Your task to perform on an android device: What is the price of a 12' ladder at Home Depot? Image 0: 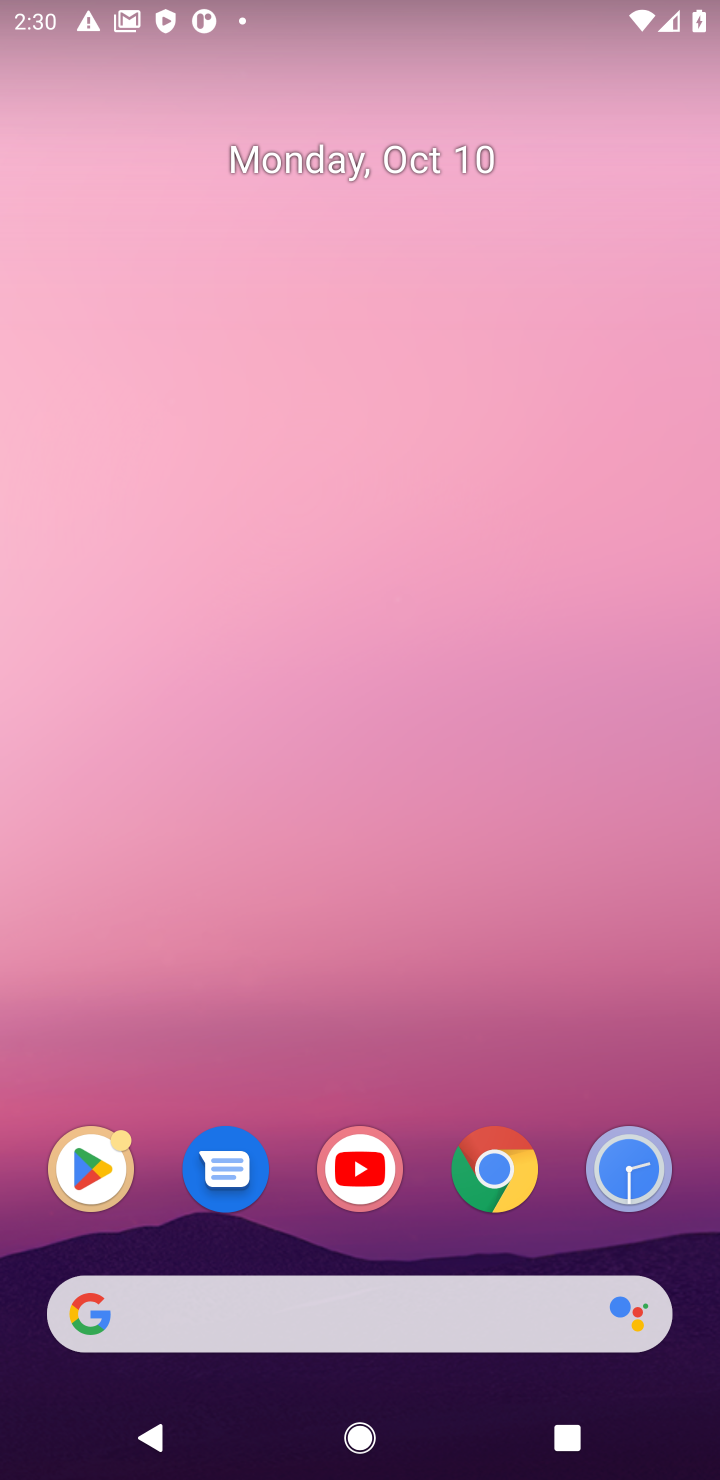
Step 0: drag from (401, 1338) to (589, 153)
Your task to perform on an android device: What is the price of a 12' ladder at Home Depot? Image 1: 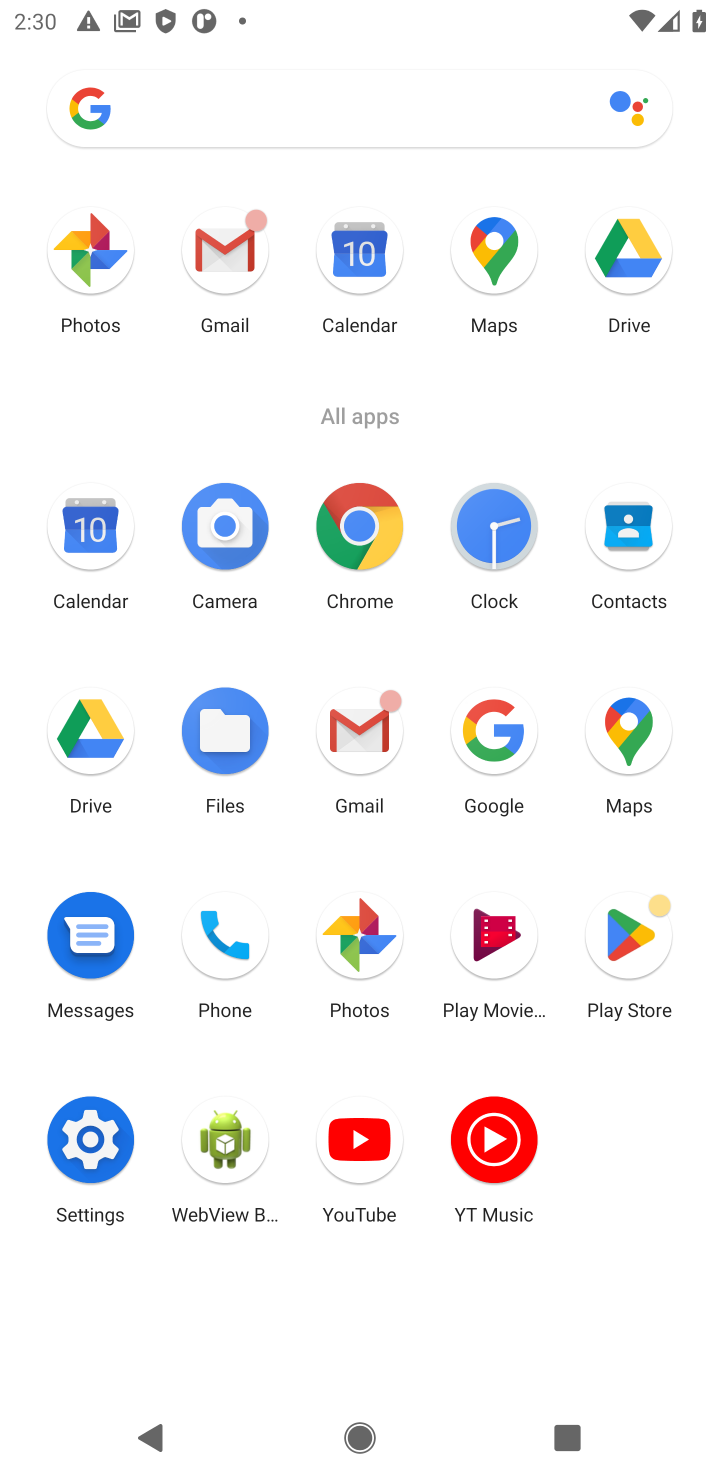
Step 1: click (350, 554)
Your task to perform on an android device: What is the price of a 12' ladder at Home Depot? Image 2: 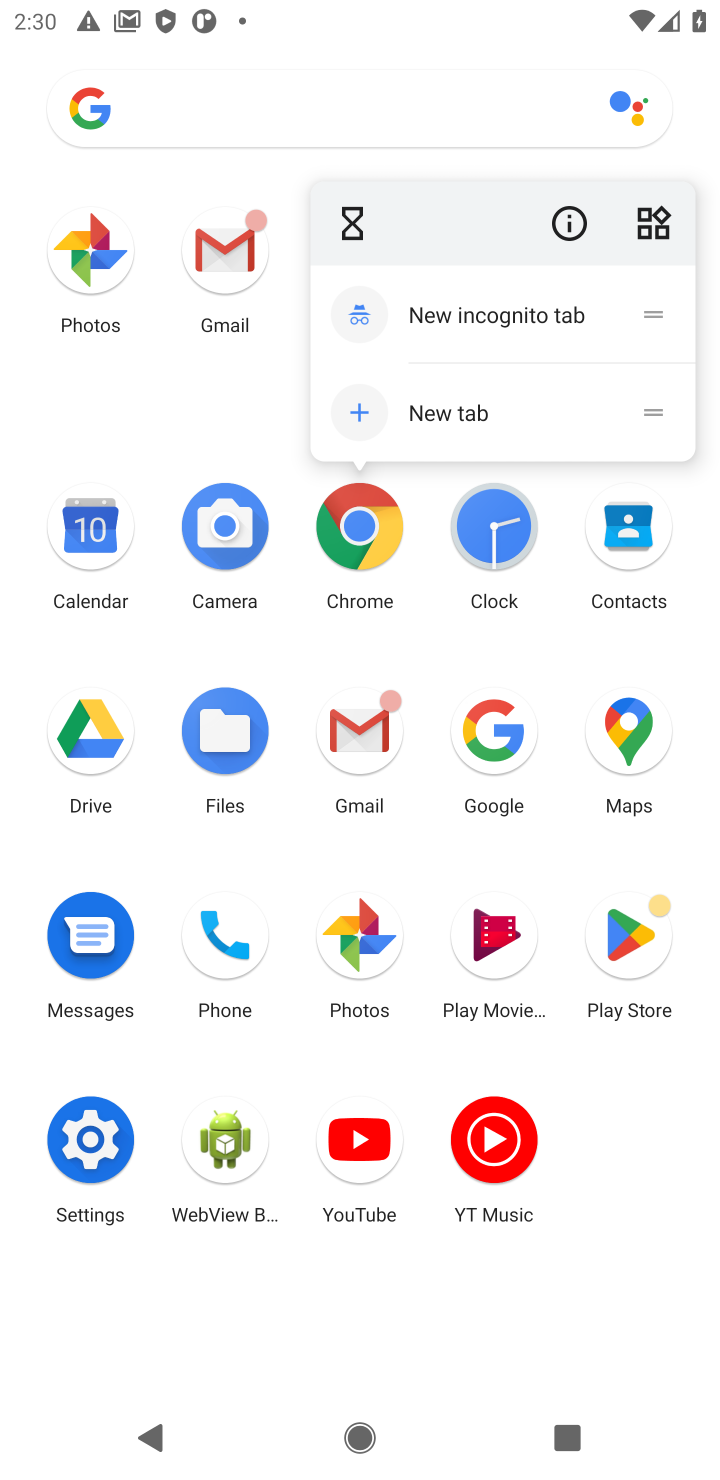
Step 2: click (362, 527)
Your task to perform on an android device: What is the price of a 12' ladder at Home Depot? Image 3: 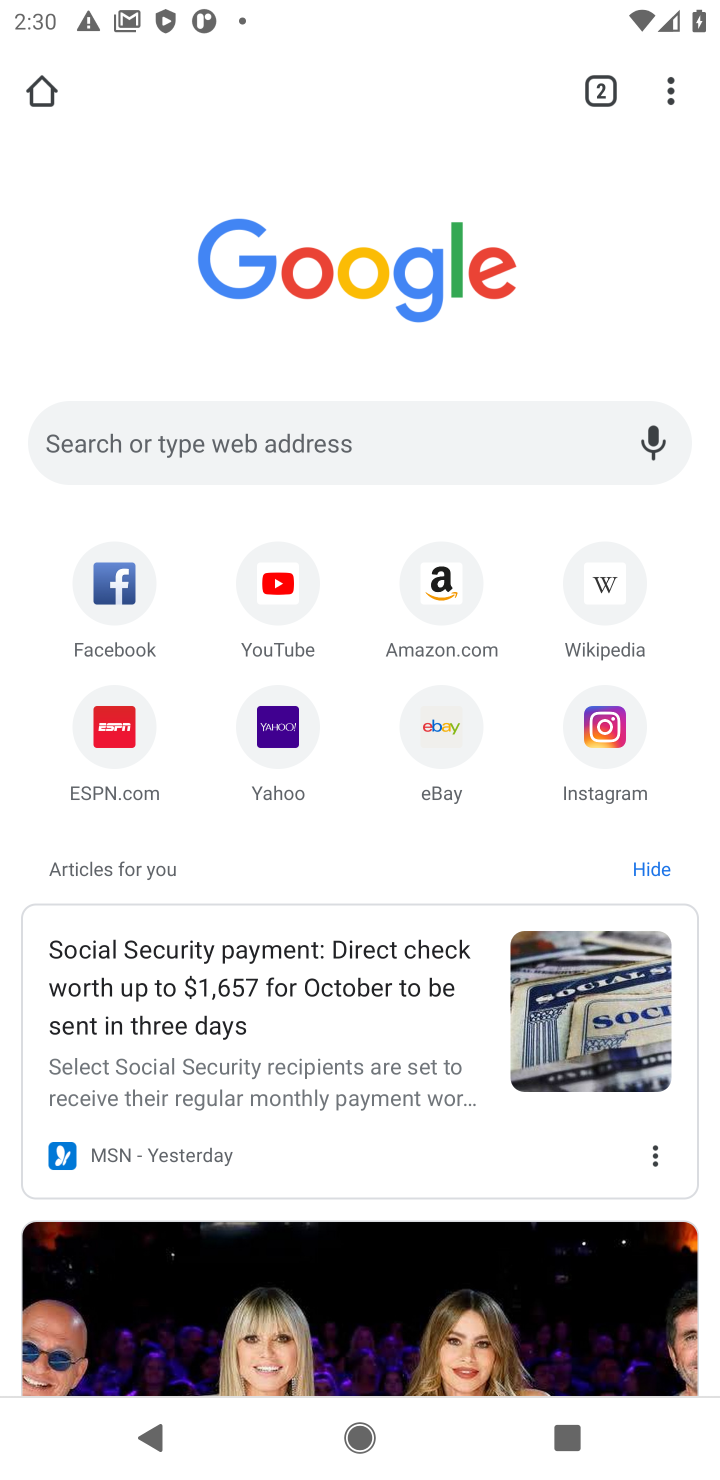
Step 3: click (313, 447)
Your task to perform on an android device: What is the price of a 12' ladder at Home Depot? Image 4: 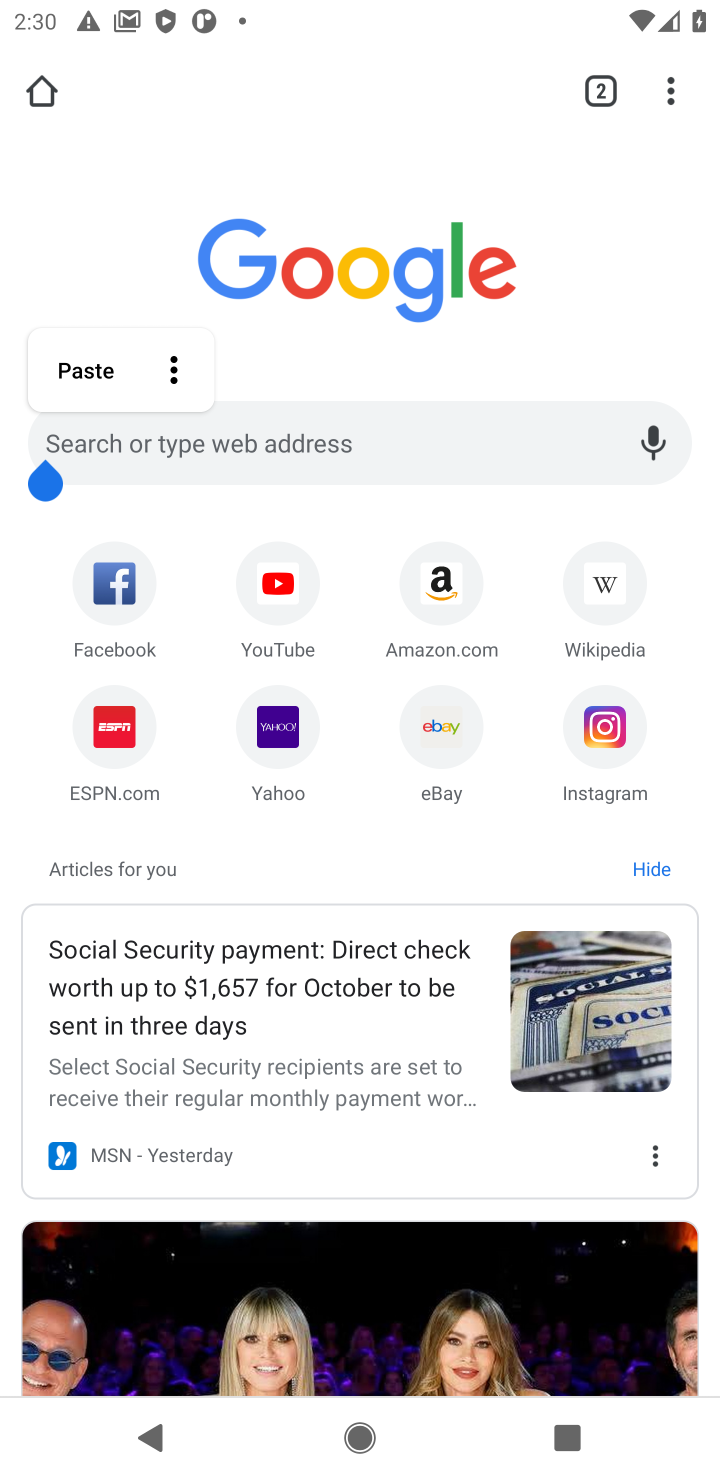
Step 4: click (415, 437)
Your task to perform on an android device: What is the price of a 12' ladder at Home Depot? Image 5: 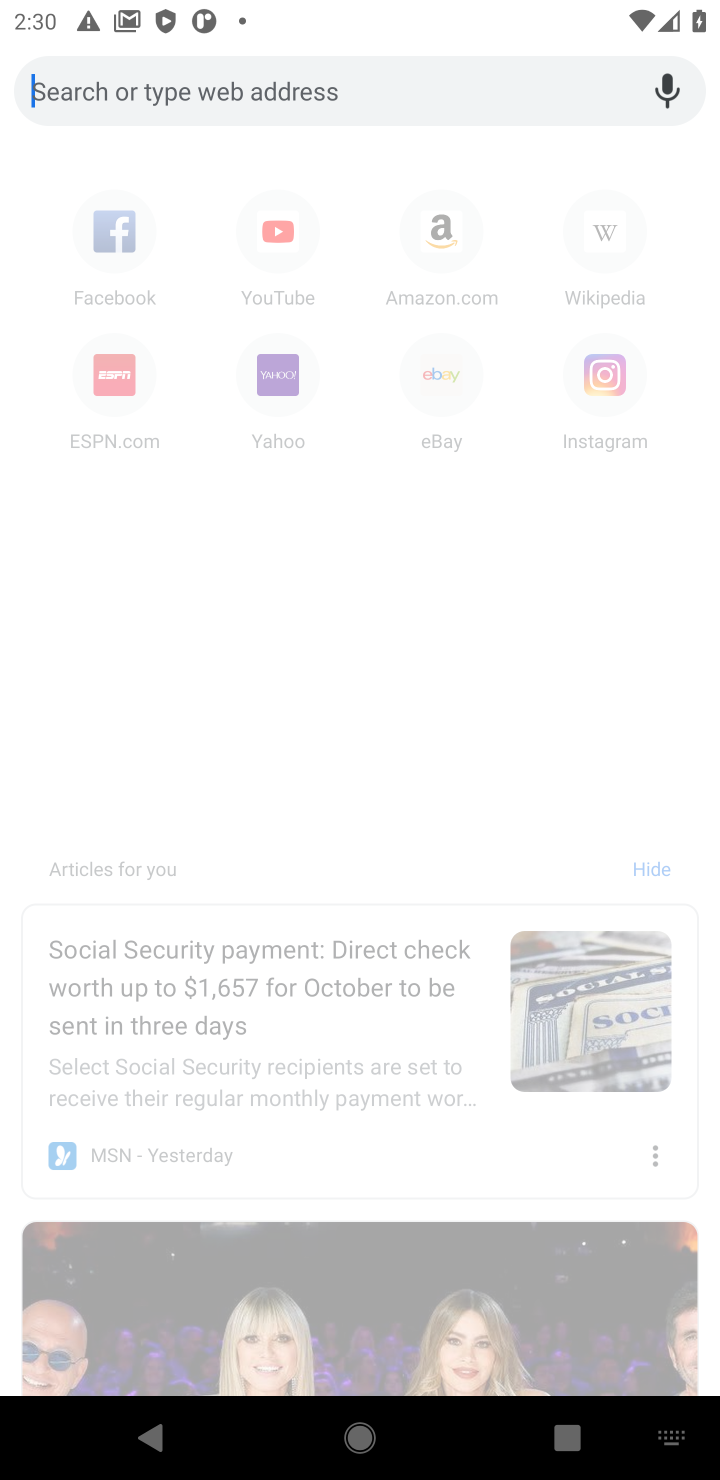
Step 5: type "What is the price of a 12' ladder at Home Depot?"
Your task to perform on an android device: What is the price of a 12' ladder at Home Depot? Image 6: 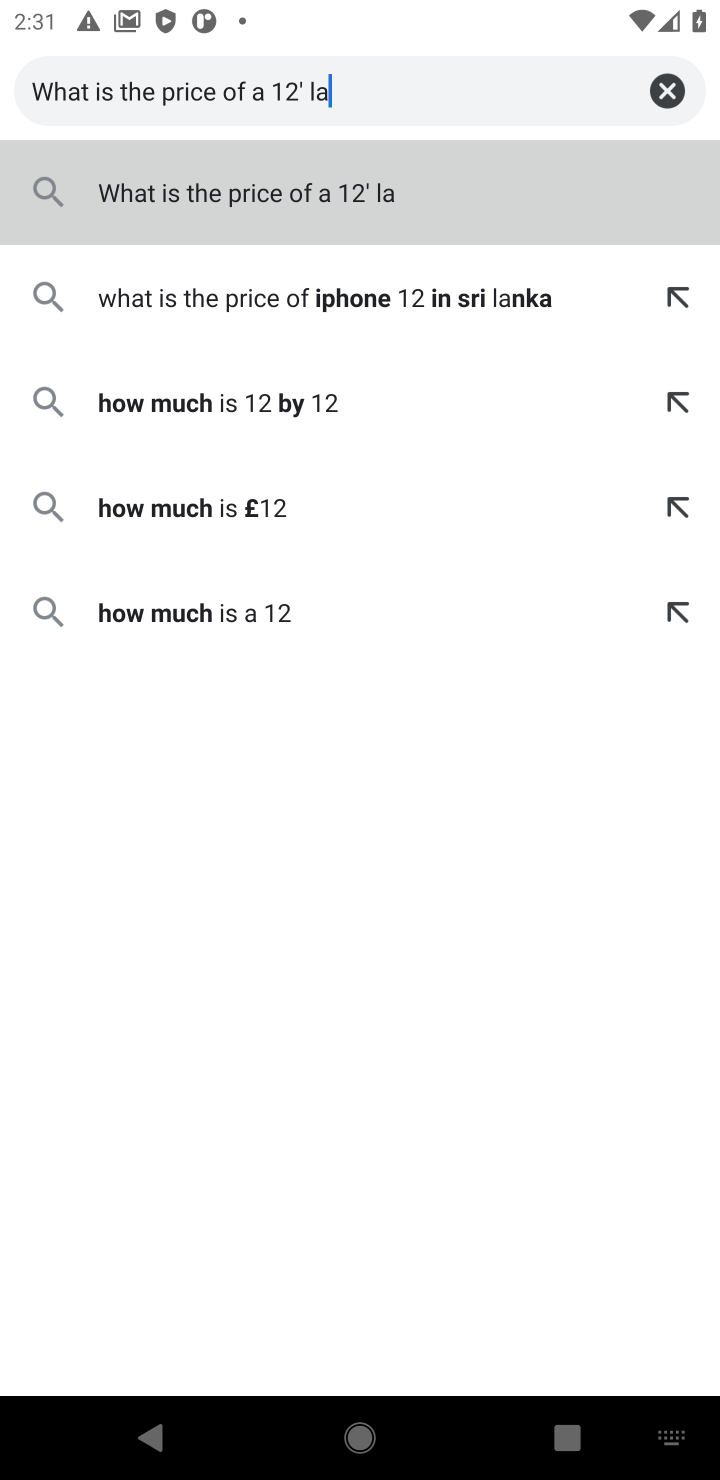
Step 6: press enter
Your task to perform on an android device: What is the price of a 12' ladder at Home Depot? Image 7: 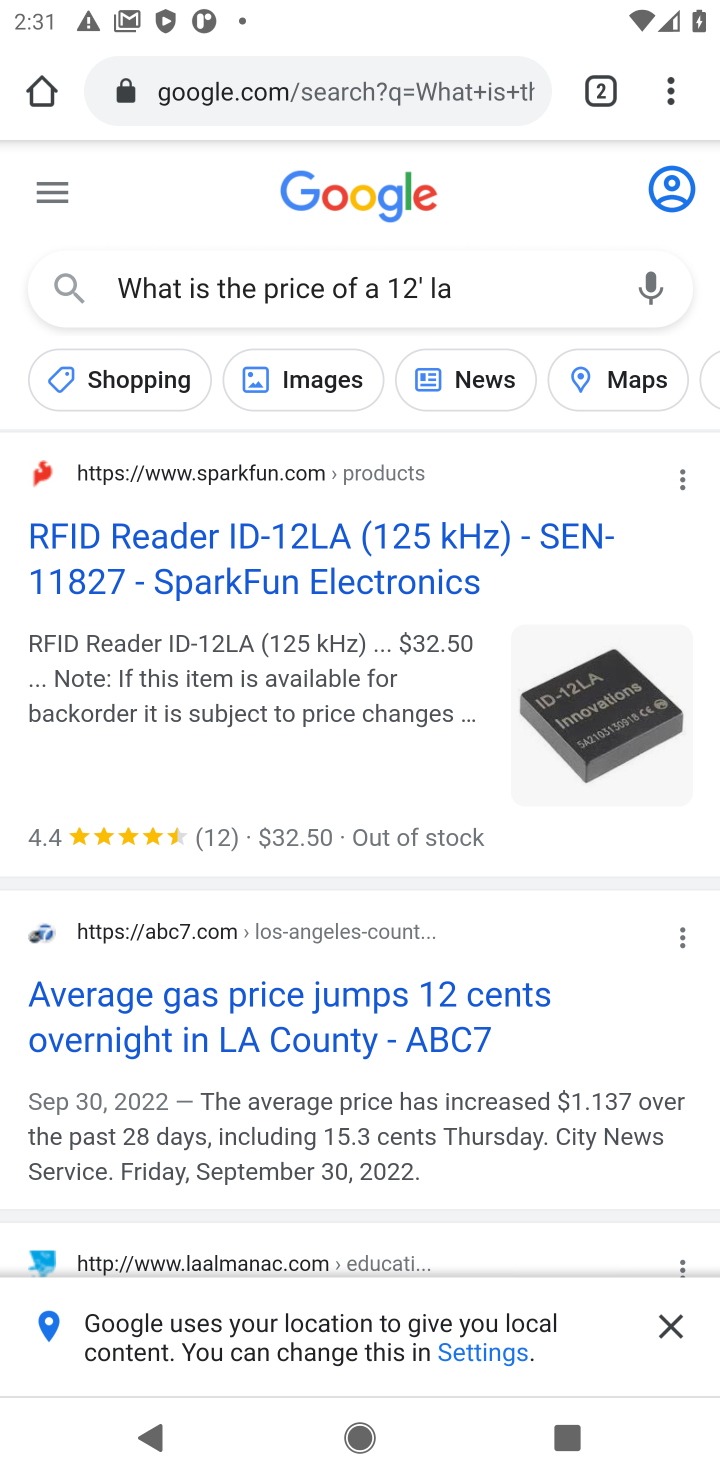
Step 7: click (275, 539)
Your task to perform on an android device: What is the price of a 12' ladder at Home Depot? Image 8: 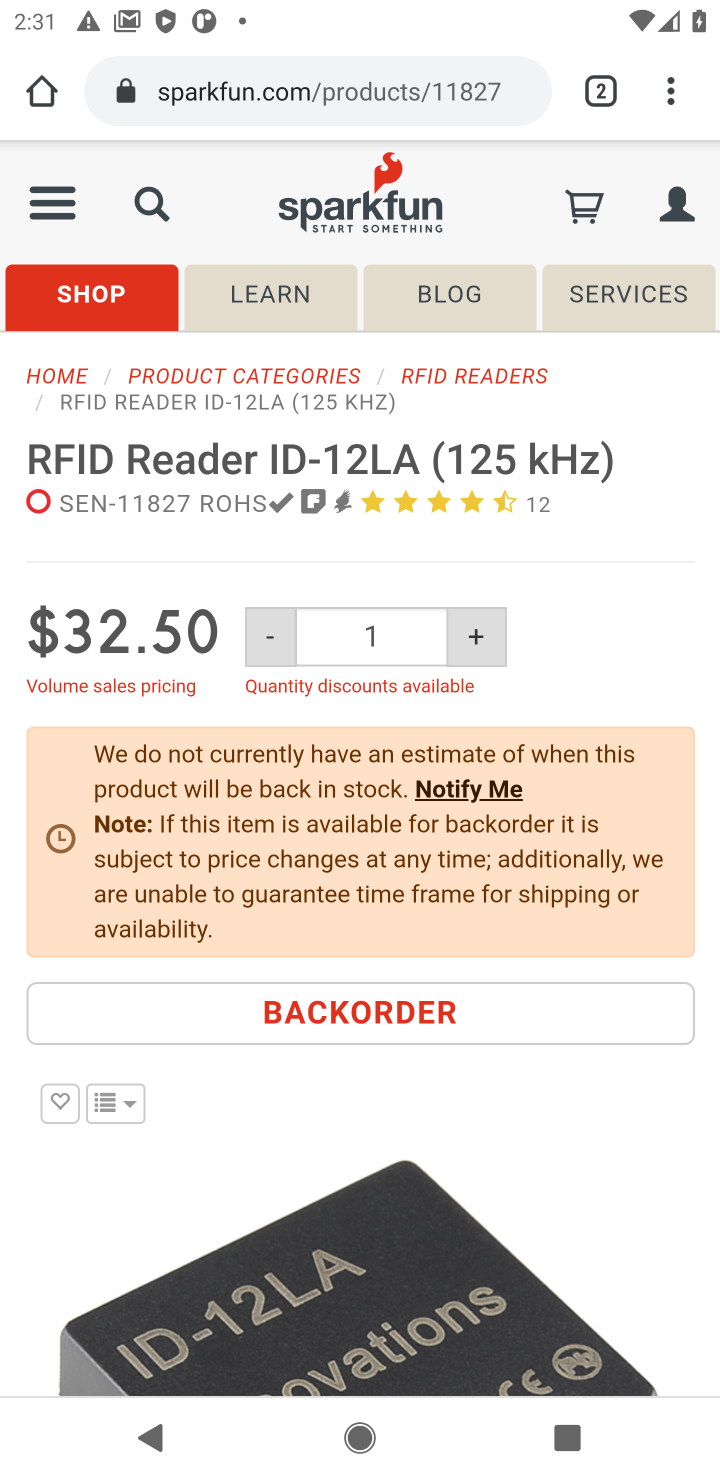
Step 8: task complete